Your task to perform on an android device: Go to privacy settings Image 0: 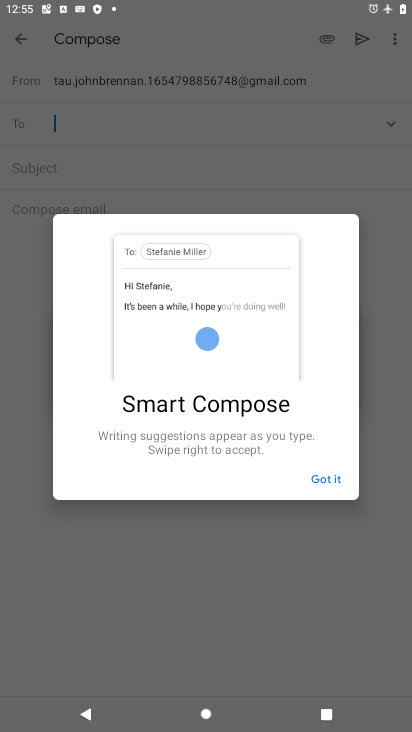
Step 0: press home button
Your task to perform on an android device: Go to privacy settings Image 1: 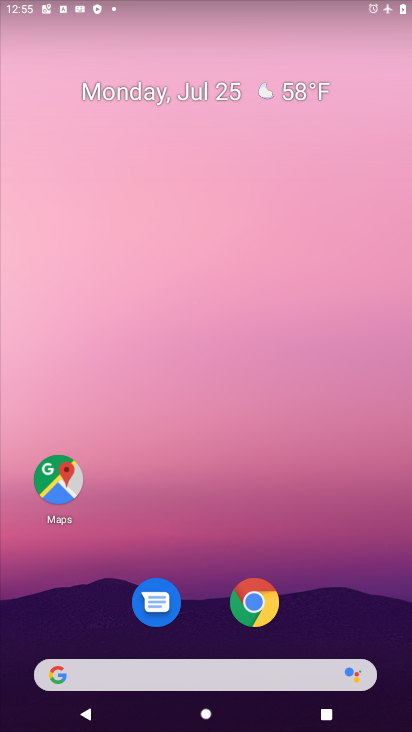
Step 1: drag from (196, 554) to (138, 20)
Your task to perform on an android device: Go to privacy settings Image 2: 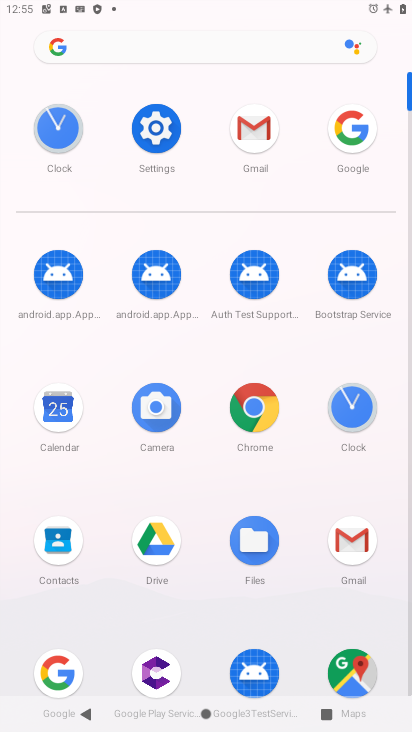
Step 2: click (173, 141)
Your task to perform on an android device: Go to privacy settings Image 3: 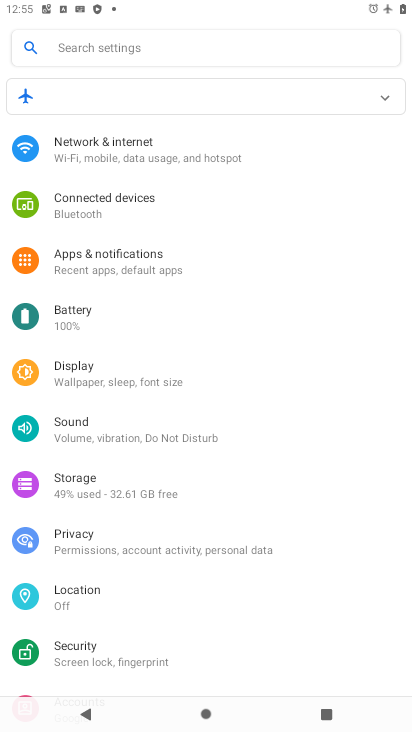
Step 3: click (105, 541)
Your task to perform on an android device: Go to privacy settings Image 4: 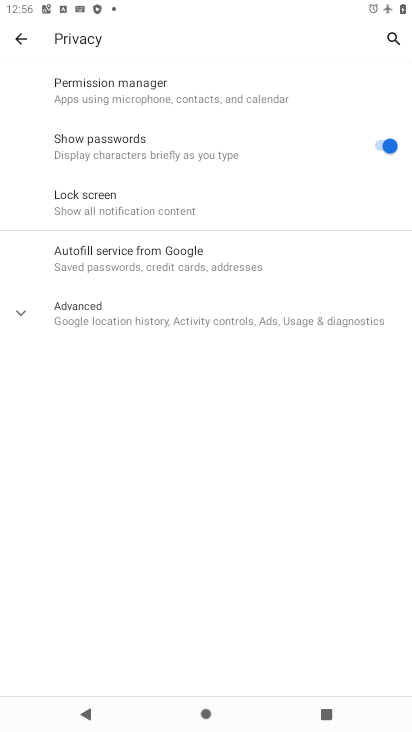
Step 4: task complete